Your task to perform on an android device: turn notification dots on Image 0: 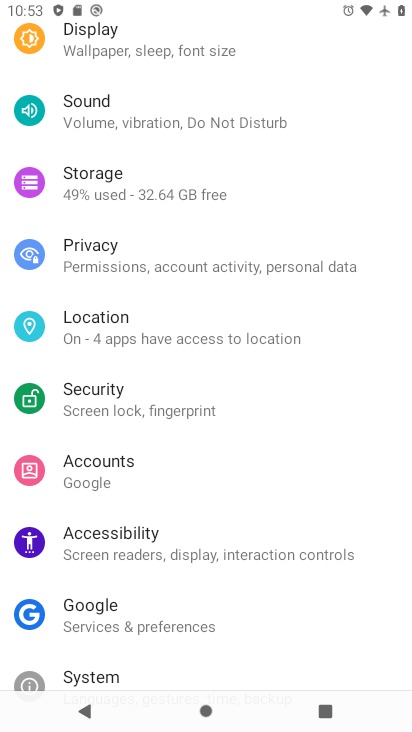
Step 0: press home button
Your task to perform on an android device: turn notification dots on Image 1: 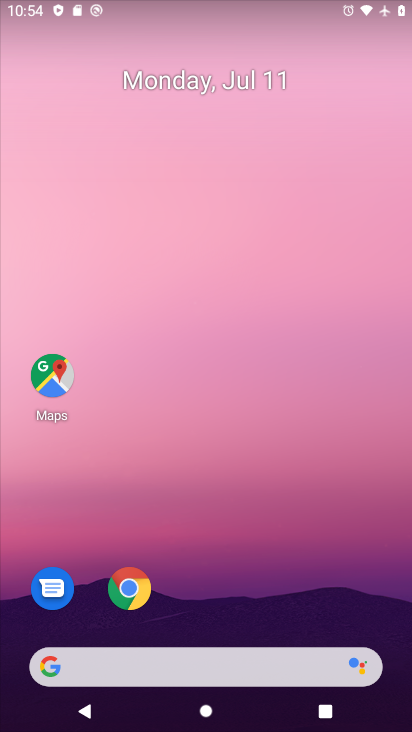
Step 1: drag from (196, 670) to (286, 101)
Your task to perform on an android device: turn notification dots on Image 2: 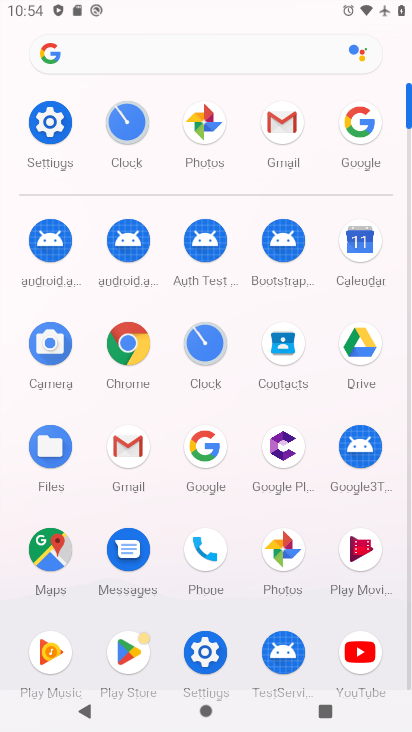
Step 2: click (40, 115)
Your task to perform on an android device: turn notification dots on Image 3: 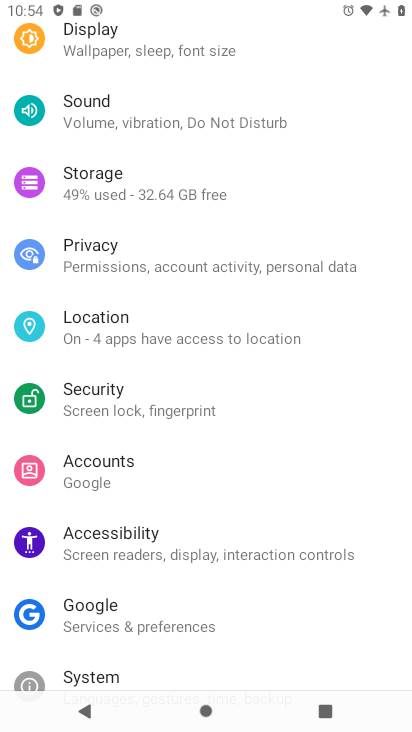
Step 3: drag from (279, 181) to (295, 544)
Your task to perform on an android device: turn notification dots on Image 4: 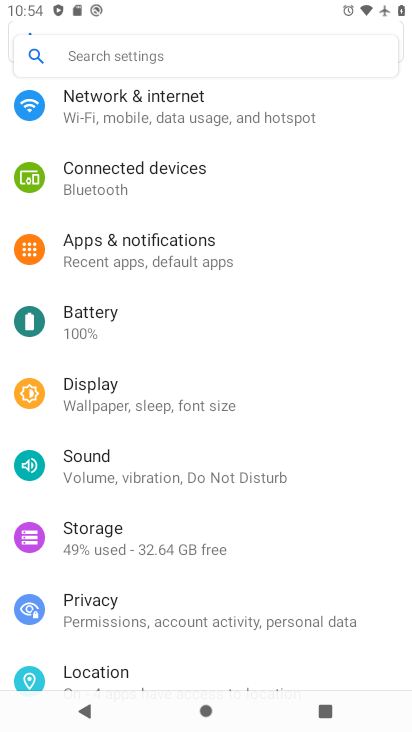
Step 4: click (177, 250)
Your task to perform on an android device: turn notification dots on Image 5: 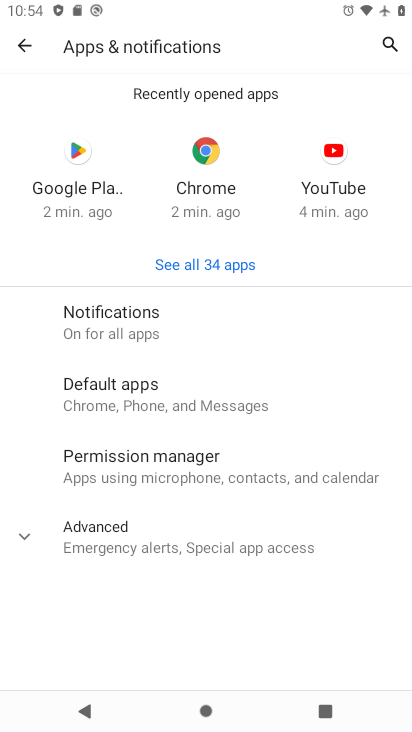
Step 5: click (143, 326)
Your task to perform on an android device: turn notification dots on Image 6: 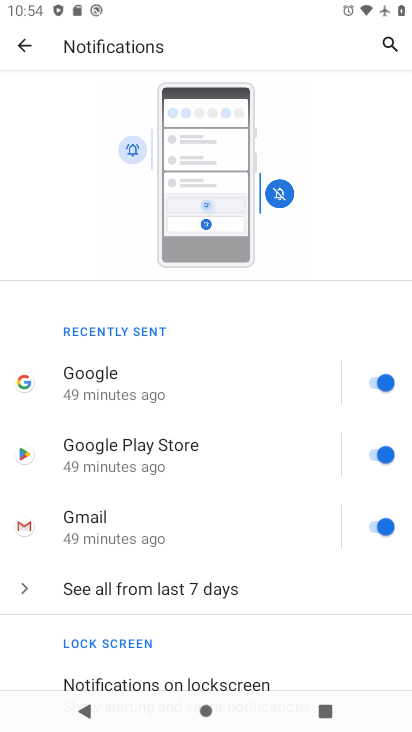
Step 6: drag from (223, 603) to (308, 254)
Your task to perform on an android device: turn notification dots on Image 7: 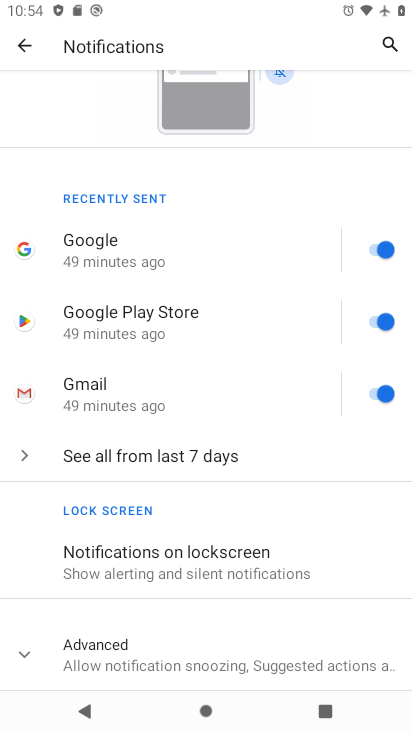
Step 7: click (182, 655)
Your task to perform on an android device: turn notification dots on Image 8: 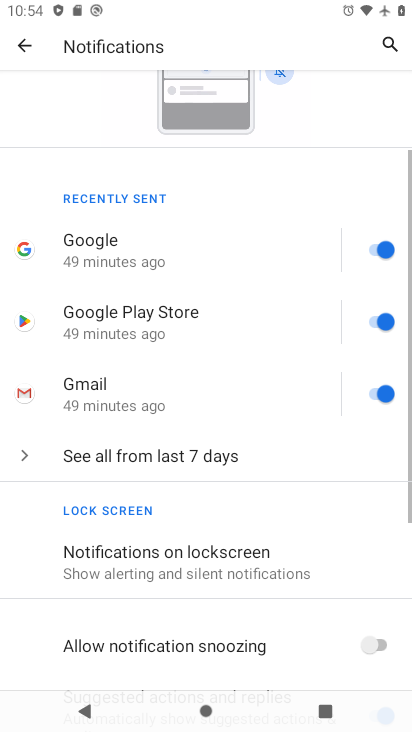
Step 8: task complete